Your task to perform on an android device: Check the settings for the Google Play Music app Image 0: 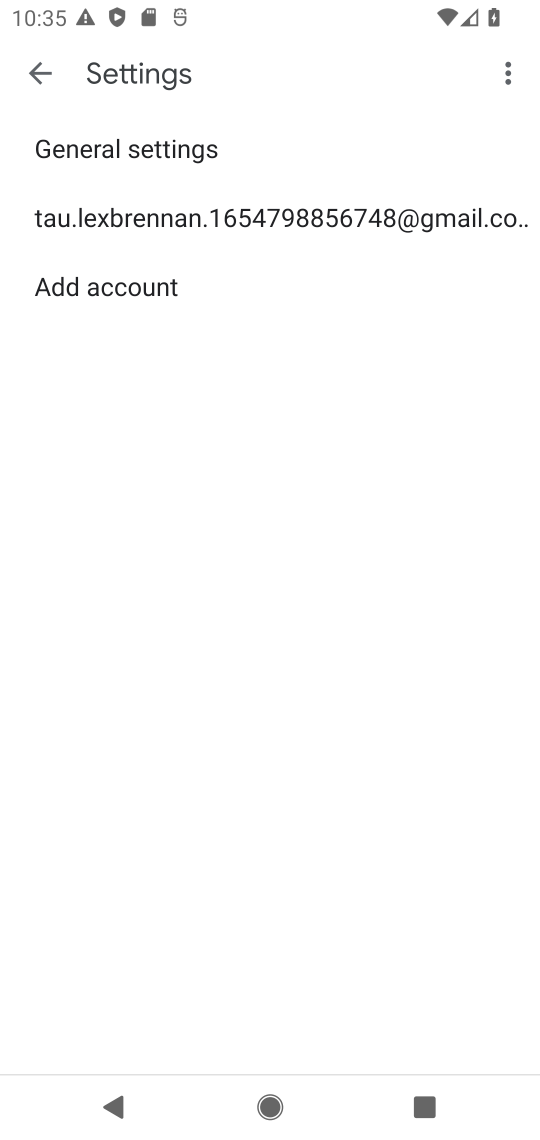
Step 0: press home button
Your task to perform on an android device: Check the settings for the Google Play Music app Image 1: 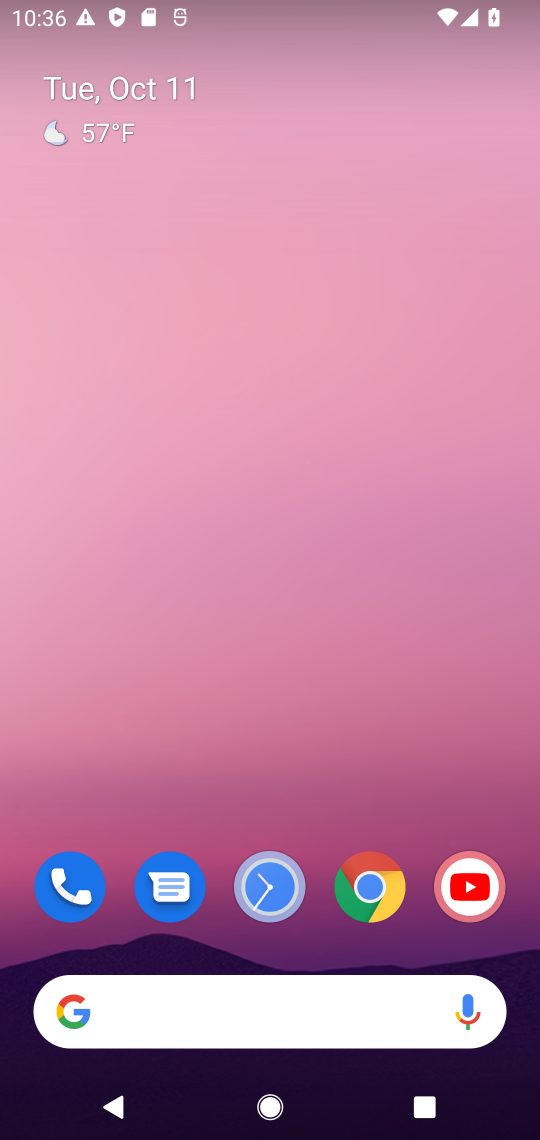
Step 1: drag from (491, 786) to (455, 246)
Your task to perform on an android device: Check the settings for the Google Play Music app Image 2: 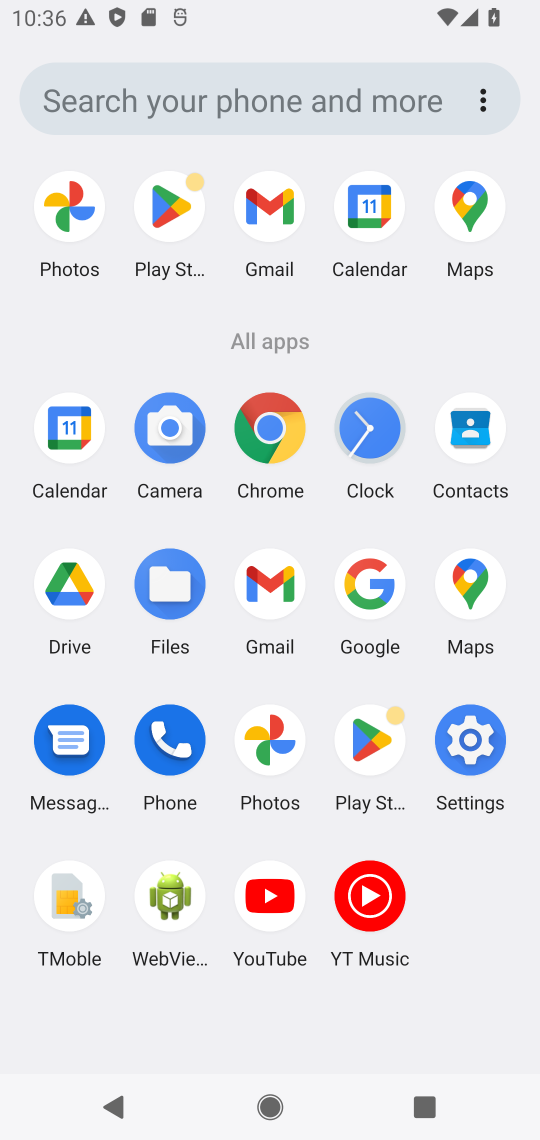
Step 2: click (390, 743)
Your task to perform on an android device: Check the settings for the Google Play Music app Image 3: 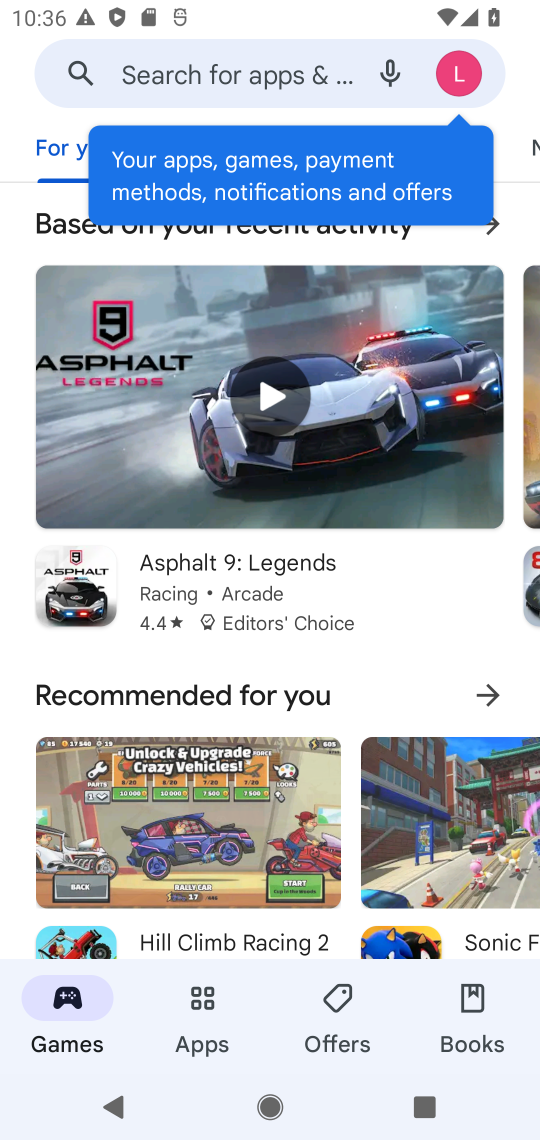
Step 3: click (238, 76)
Your task to perform on an android device: Check the settings for the Google Play Music app Image 4: 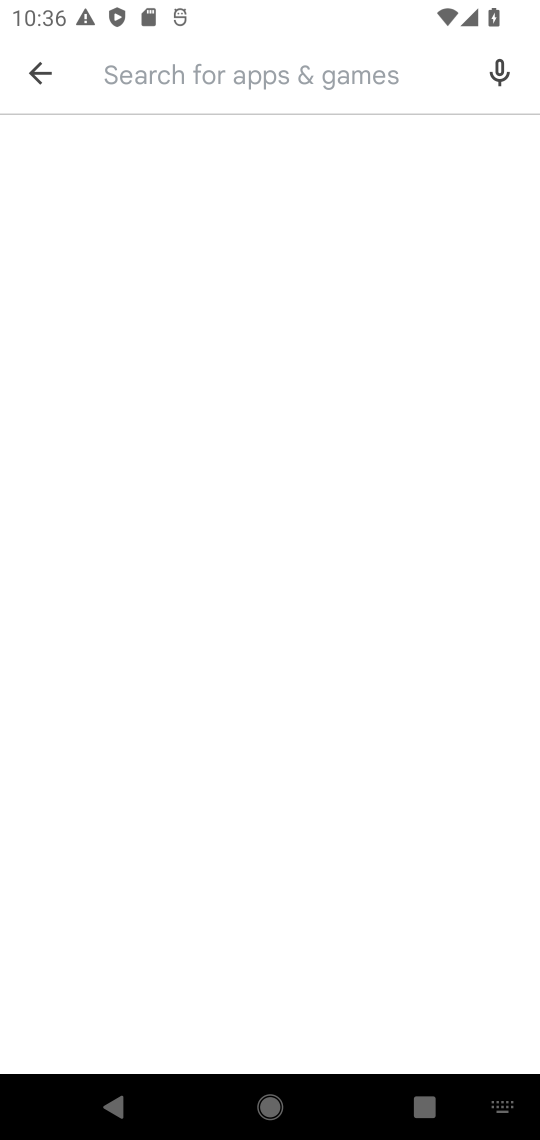
Step 4: type "Google Play Music app"
Your task to perform on an android device: Check the settings for the Google Play Music app Image 5: 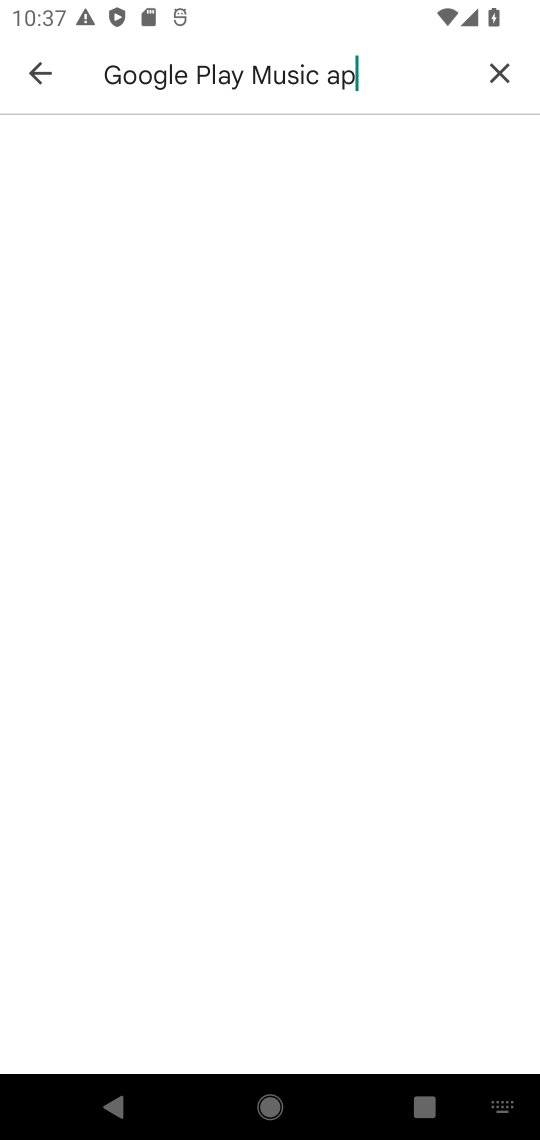
Step 5: press enter
Your task to perform on an android device: Check the settings for the Google Play Music app Image 6: 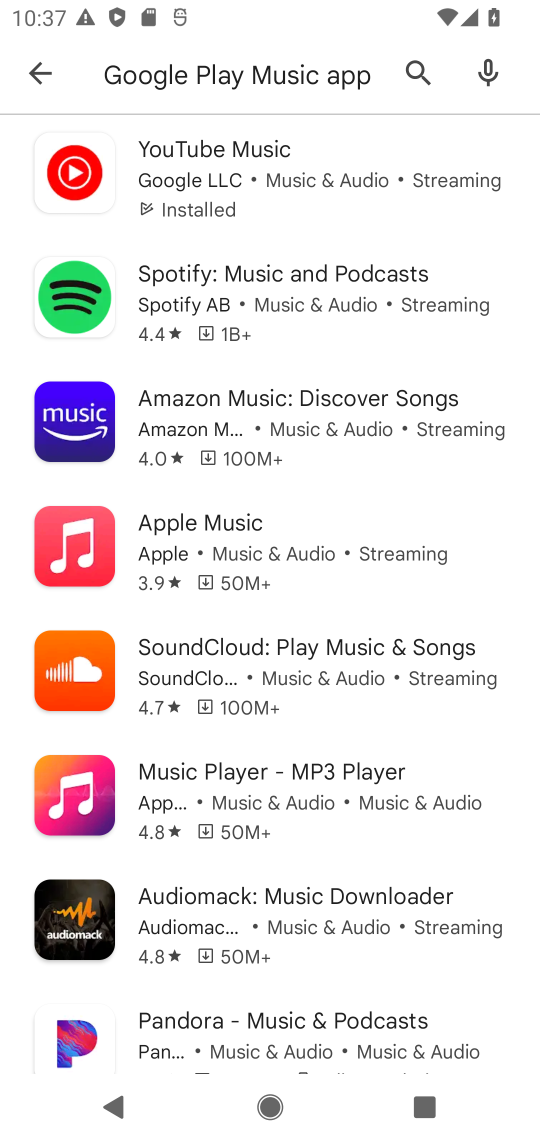
Step 6: click (318, 171)
Your task to perform on an android device: Check the settings for the Google Play Music app Image 7: 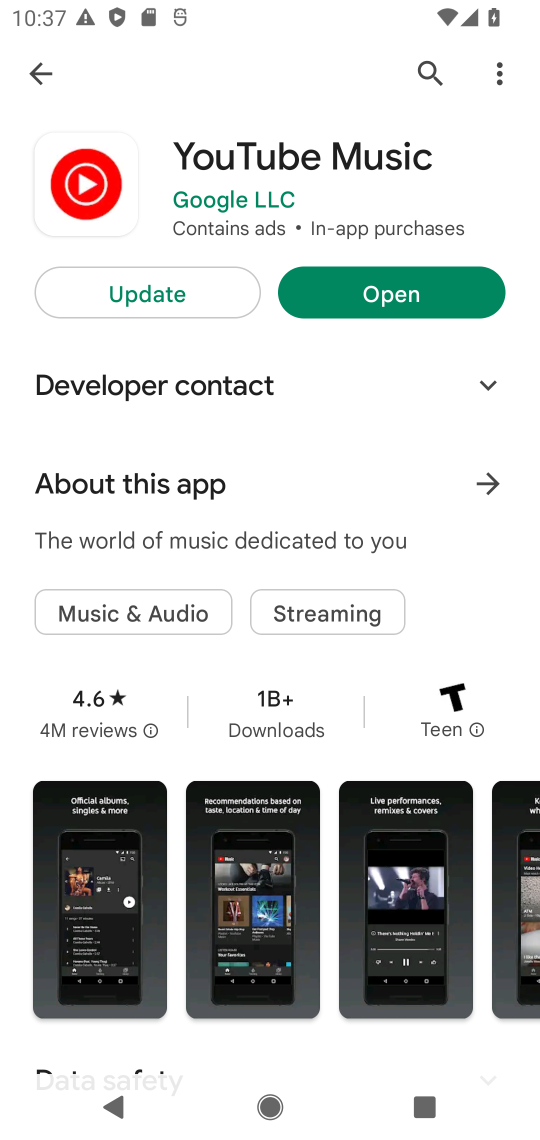
Step 7: task complete